Your task to perform on an android device: Open my contact list Image 0: 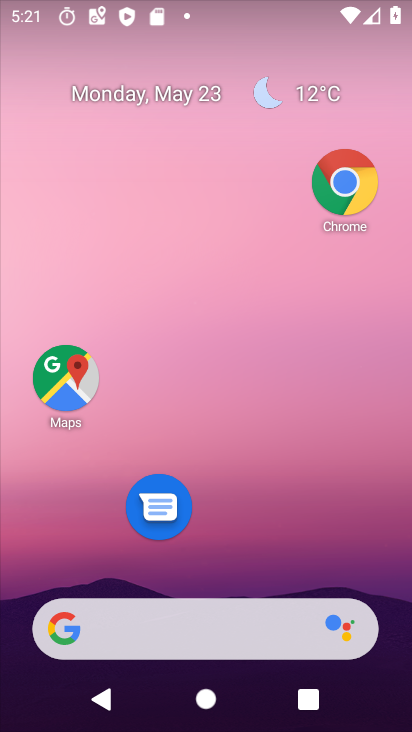
Step 0: drag from (225, 563) to (328, 166)
Your task to perform on an android device: Open my contact list Image 1: 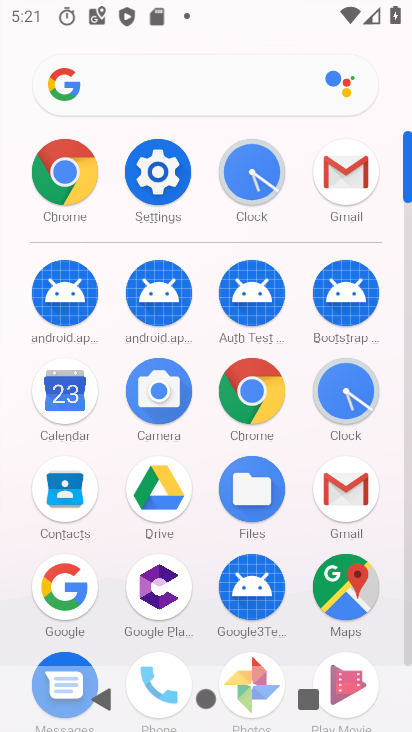
Step 1: click (86, 506)
Your task to perform on an android device: Open my contact list Image 2: 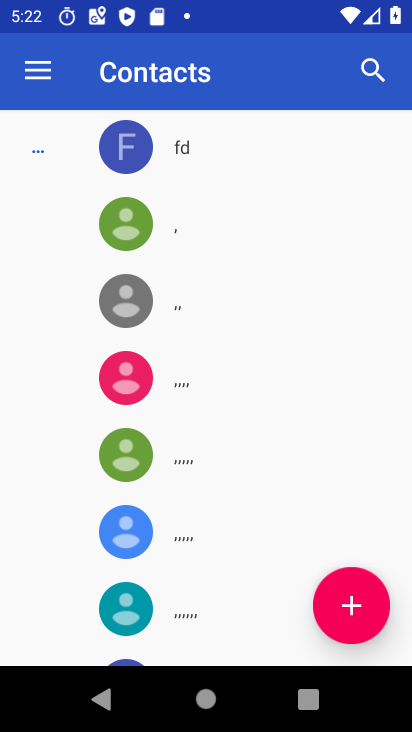
Step 2: task complete